Your task to perform on an android device: Open ESPN.com Image 0: 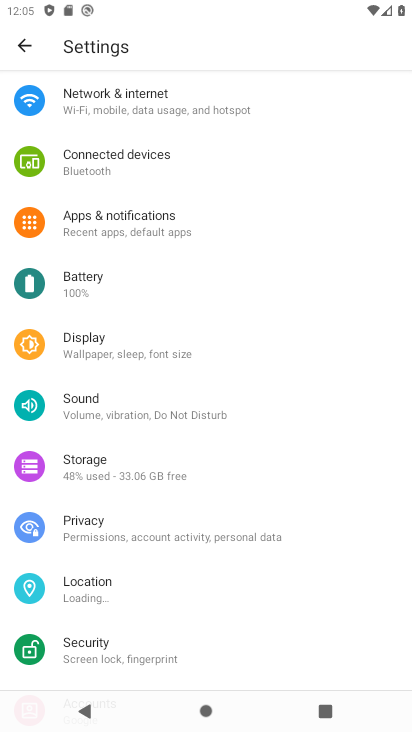
Step 0: press back button
Your task to perform on an android device: Open ESPN.com Image 1: 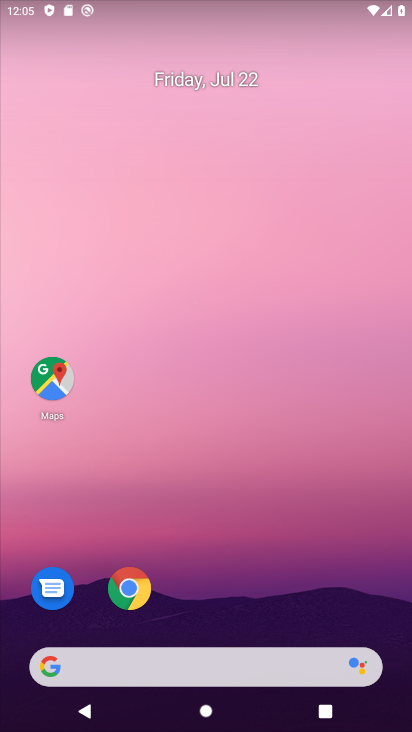
Step 1: click (123, 599)
Your task to perform on an android device: Open ESPN.com Image 2: 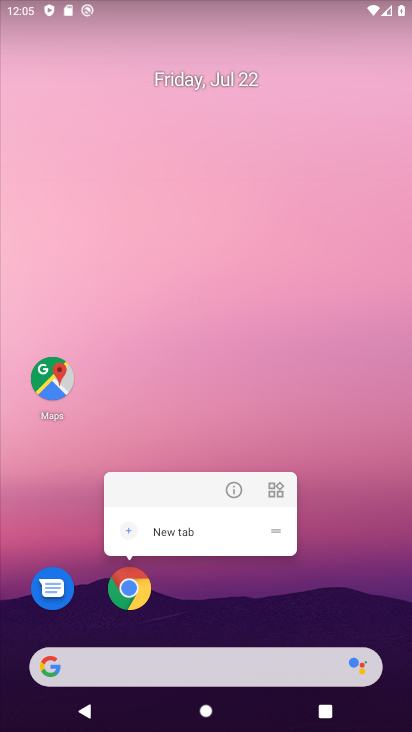
Step 2: click (132, 587)
Your task to perform on an android device: Open ESPN.com Image 3: 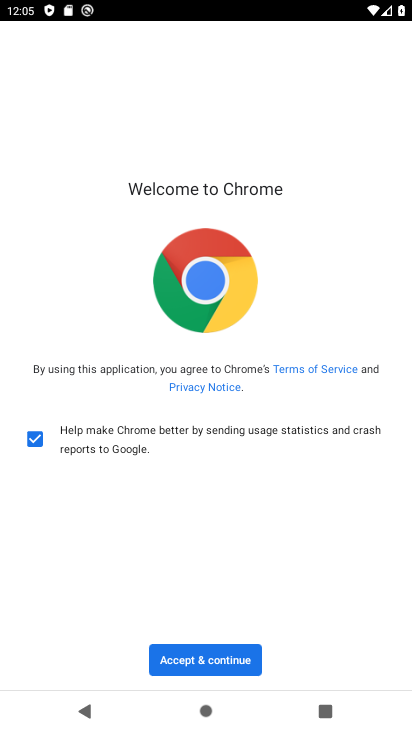
Step 3: click (249, 656)
Your task to perform on an android device: Open ESPN.com Image 4: 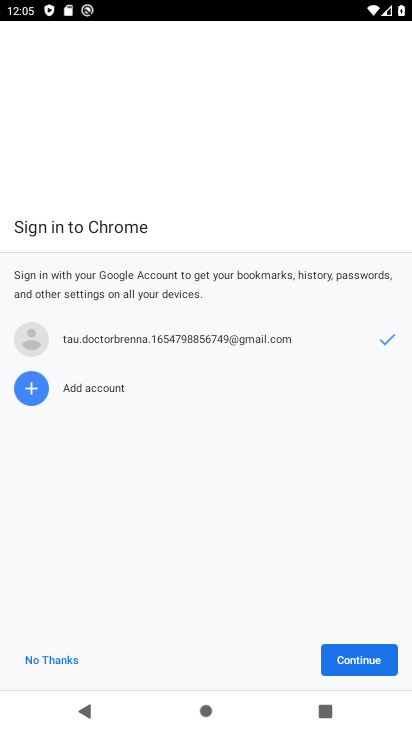
Step 4: click (368, 648)
Your task to perform on an android device: Open ESPN.com Image 5: 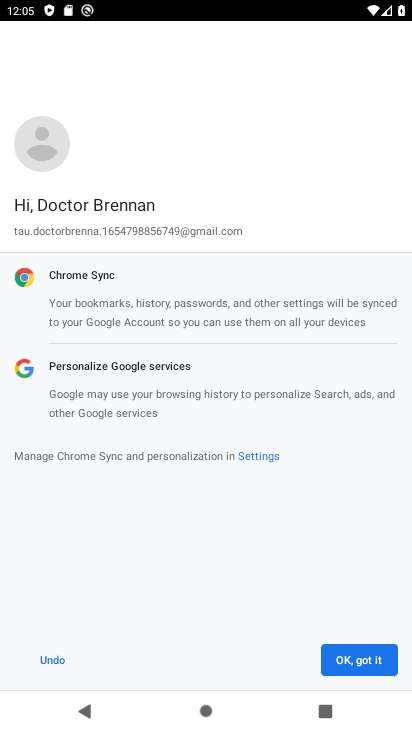
Step 5: click (361, 661)
Your task to perform on an android device: Open ESPN.com Image 6: 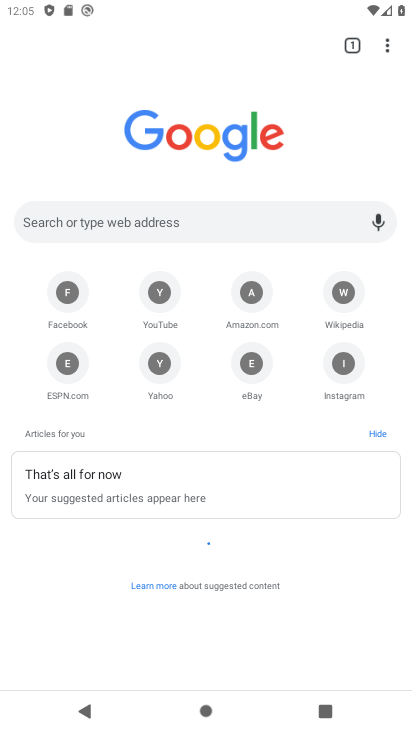
Step 6: click (63, 376)
Your task to perform on an android device: Open ESPN.com Image 7: 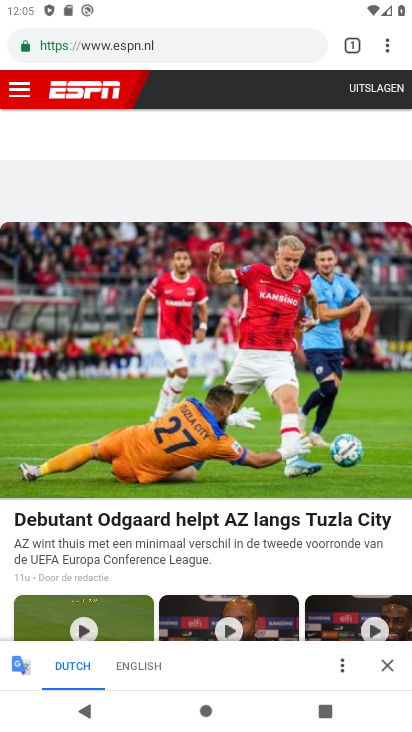
Step 7: task complete